Your task to perform on an android device: open the mobile data screen to see how much data has been used Image 0: 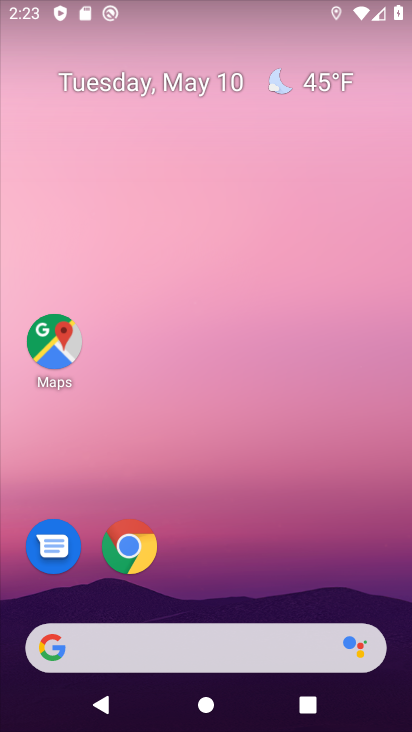
Step 0: drag from (288, 529) to (211, 13)
Your task to perform on an android device: open the mobile data screen to see how much data has been used Image 1: 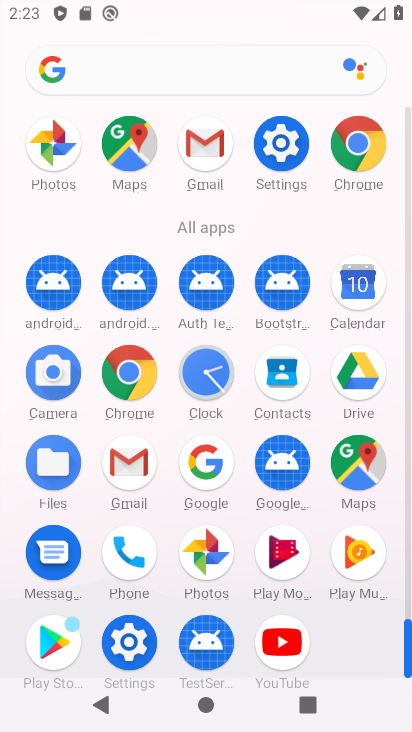
Step 1: click (281, 137)
Your task to perform on an android device: open the mobile data screen to see how much data has been used Image 2: 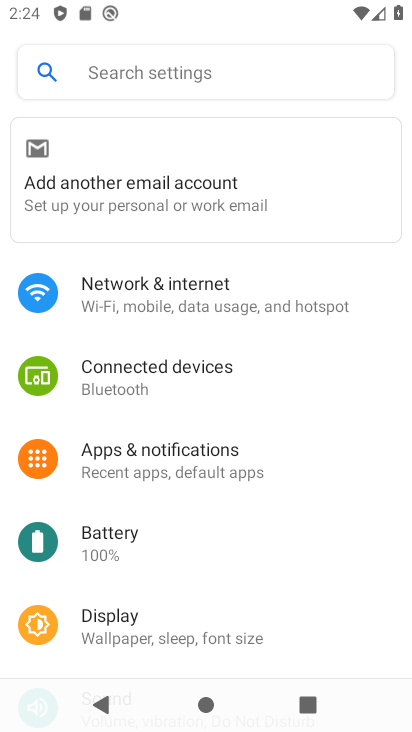
Step 2: click (201, 306)
Your task to perform on an android device: open the mobile data screen to see how much data has been used Image 3: 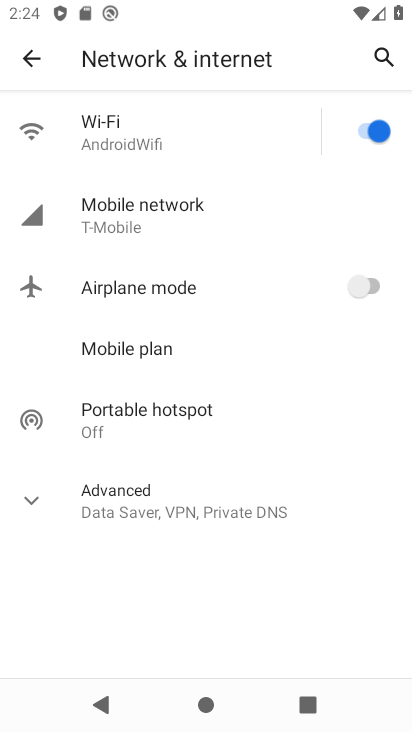
Step 3: click (156, 211)
Your task to perform on an android device: open the mobile data screen to see how much data has been used Image 4: 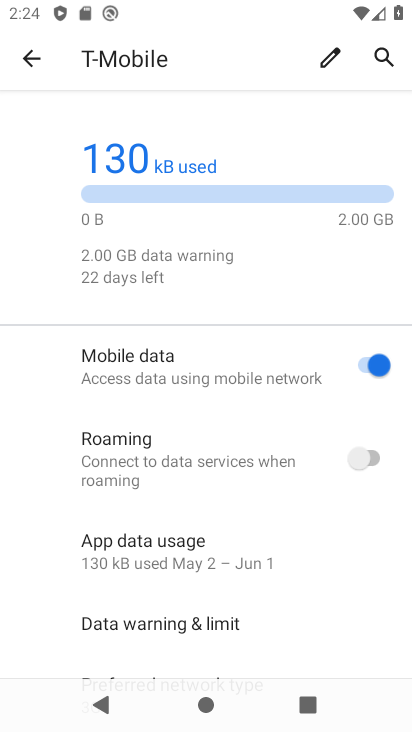
Step 4: task complete